Your task to perform on an android device: Open battery settings Image 0: 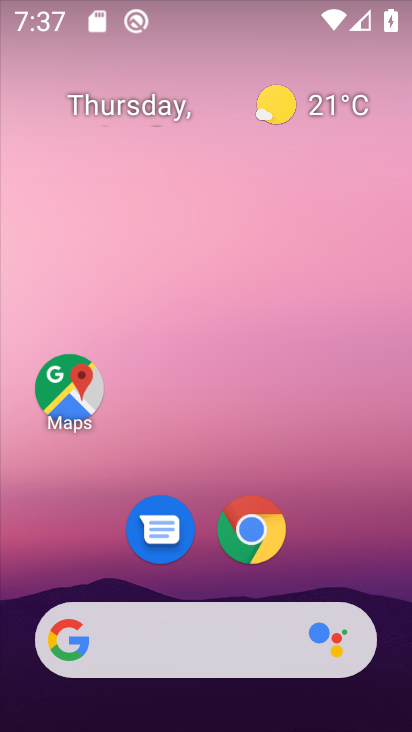
Step 0: drag from (271, 727) to (249, 178)
Your task to perform on an android device: Open battery settings Image 1: 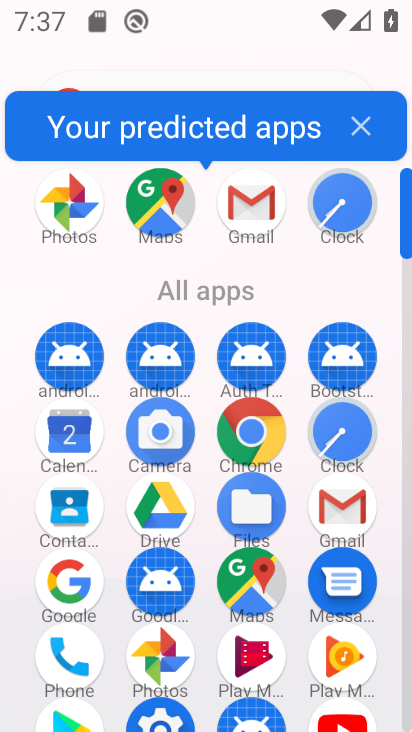
Step 1: click (176, 711)
Your task to perform on an android device: Open battery settings Image 2: 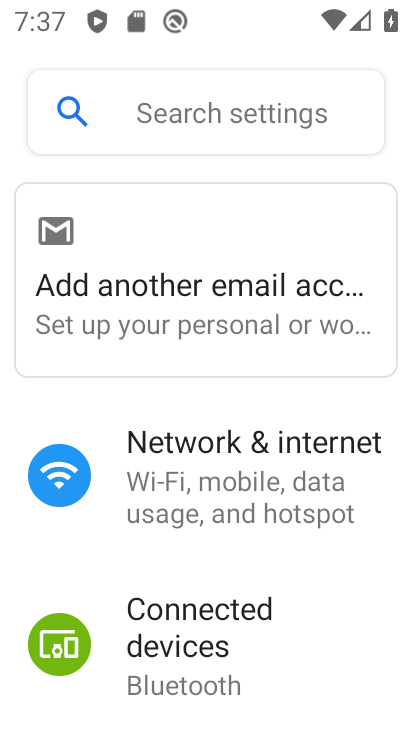
Step 2: drag from (337, 492) to (328, 24)
Your task to perform on an android device: Open battery settings Image 3: 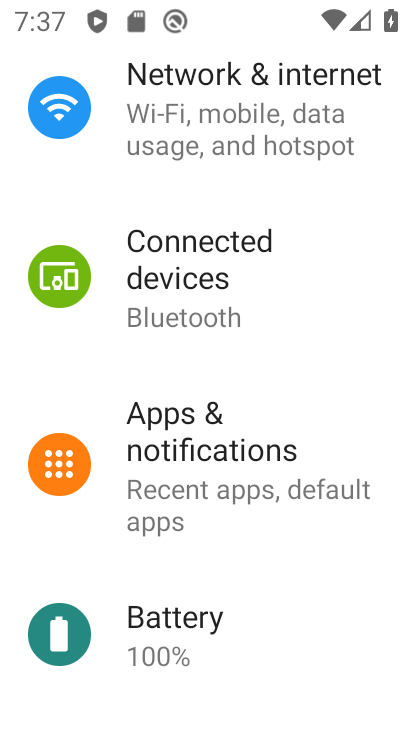
Step 3: click (200, 656)
Your task to perform on an android device: Open battery settings Image 4: 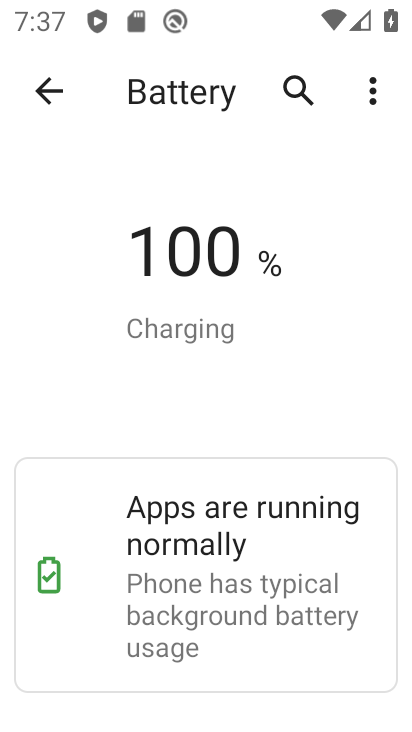
Step 4: task complete